Your task to perform on an android device: turn off translation in the chrome app Image 0: 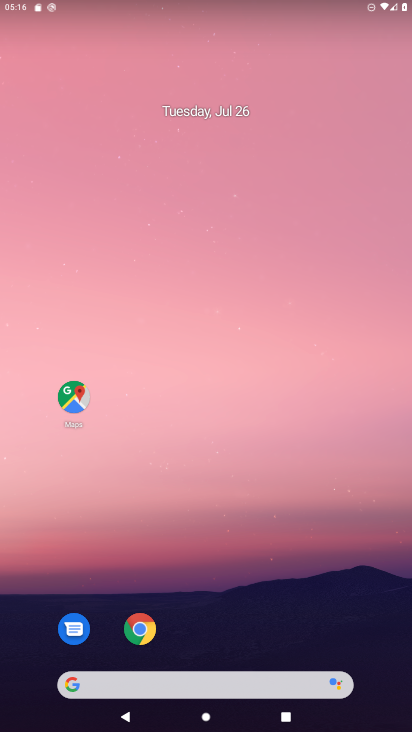
Step 0: click (143, 632)
Your task to perform on an android device: turn off translation in the chrome app Image 1: 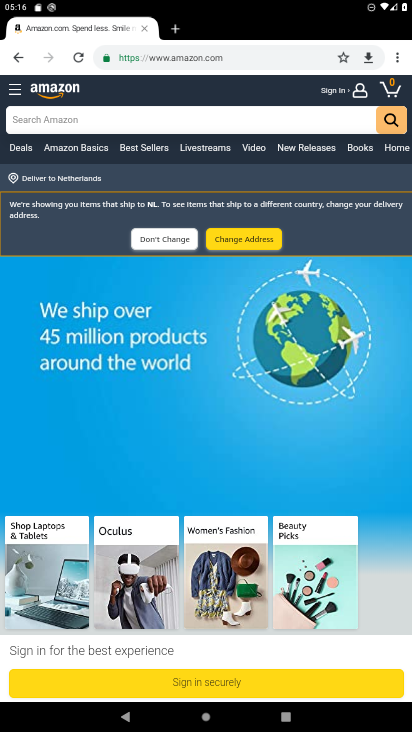
Step 1: click (394, 58)
Your task to perform on an android device: turn off translation in the chrome app Image 2: 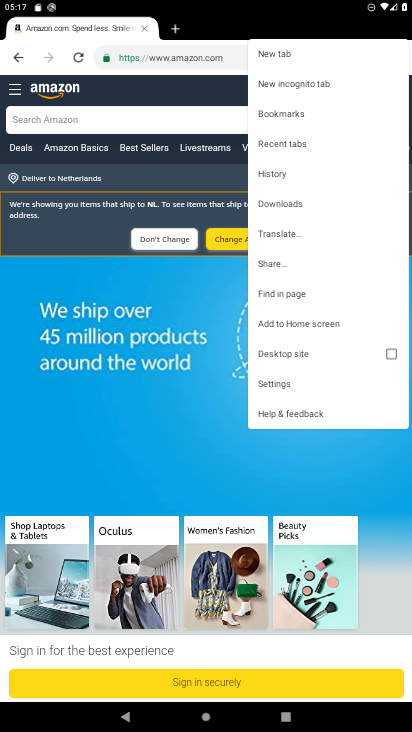
Step 2: click (275, 383)
Your task to perform on an android device: turn off translation in the chrome app Image 3: 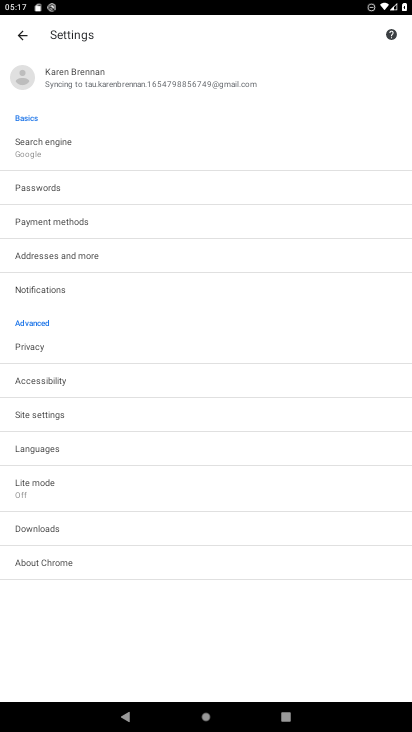
Step 3: click (72, 442)
Your task to perform on an android device: turn off translation in the chrome app Image 4: 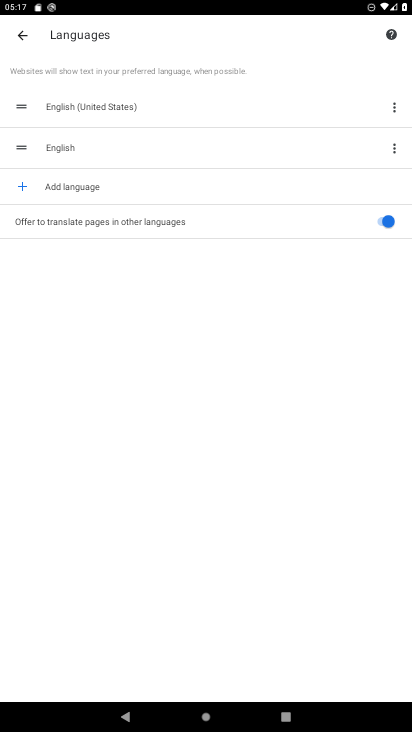
Step 4: click (379, 218)
Your task to perform on an android device: turn off translation in the chrome app Image 5: 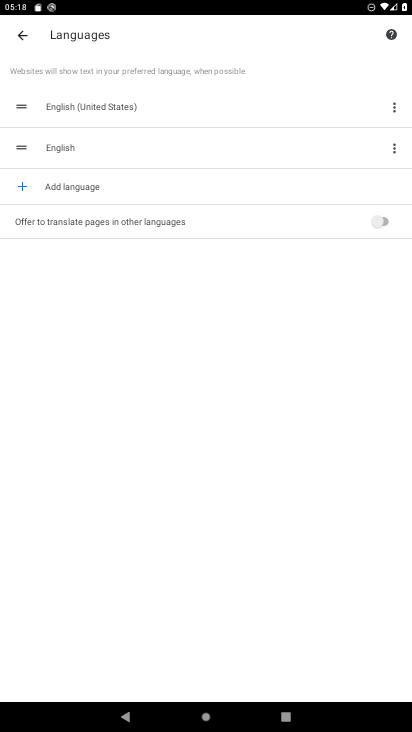
Step 5: task complete